Your task to perform on an android device: see tabs open on other devices in the chrome app Image 0: 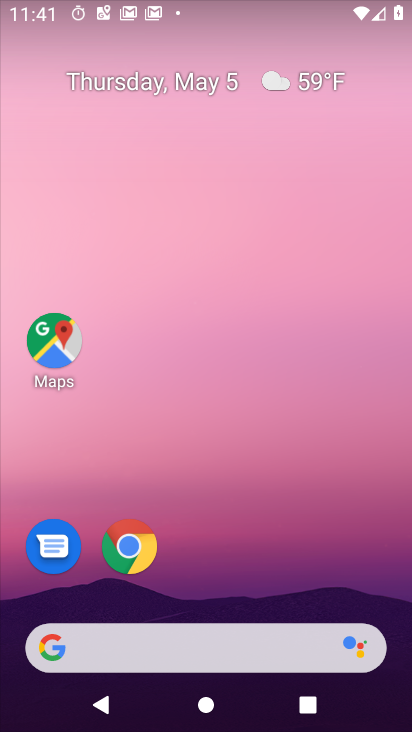
Step 0: click (128, 541)
Your task to perform on an android device: see tabs open on other devices in the chrome app Image 1: 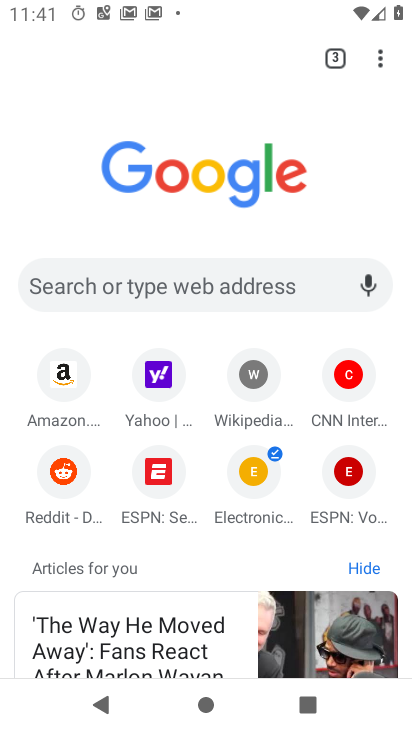
Step 1: click (383, 58)
Your task to perform on an android device: see tabs open on other devices in the chrome app Image 2: 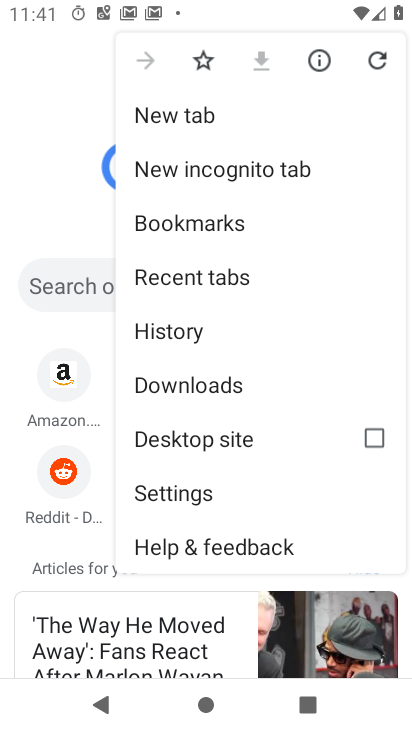
Step 2: click (218, 270)
Your task to perform on an android device: see tabs open on other devices in the chrome app Image 3: 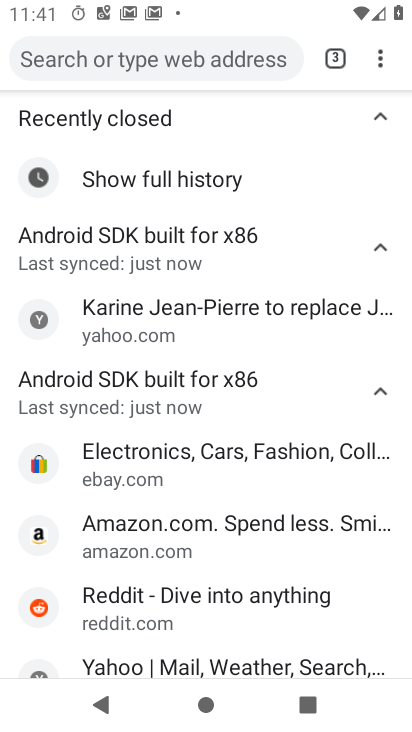
Step 3: task complete